Your task to perform on an android device: turn on location history Image 0: 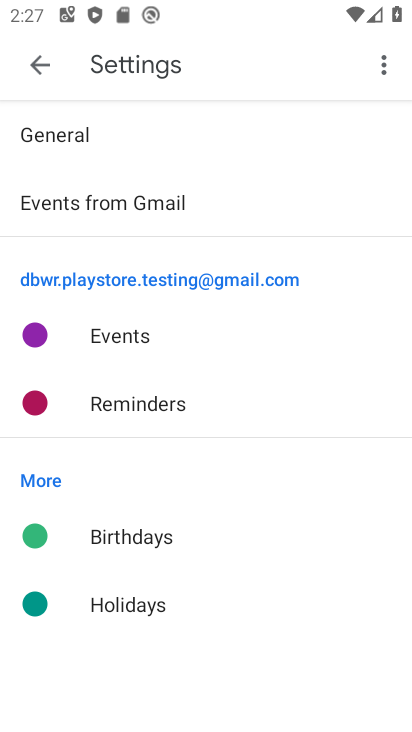
Step 0: press home button
Your task to perform on an android device: turn on location history Image 1: 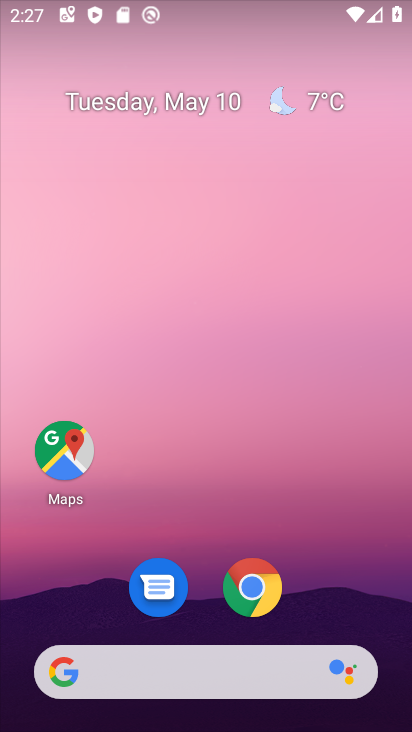
Step 1: drag from (366, 588) to (225, 0)
Your task to perform on an android device: turn on location history Image 2: 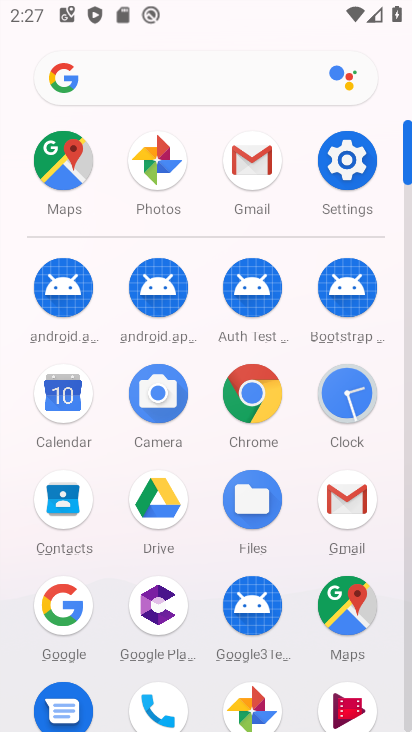
Step 2: click (359, 187)
Your task to perform on an android device: turn on location history Image 3: 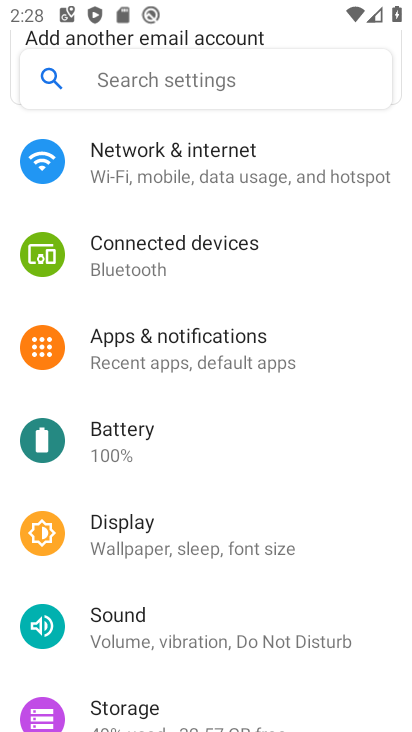
Step 3: drag from (201, 649) to (178, 258)
Your task to perform on an android device: turn on location history Image 4: 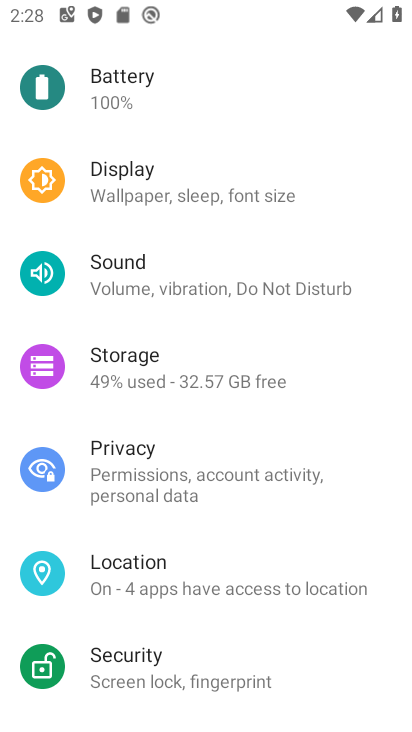
Step 4: click (140, 586)
Your task to perform on an android device: turn on location history Image 5: 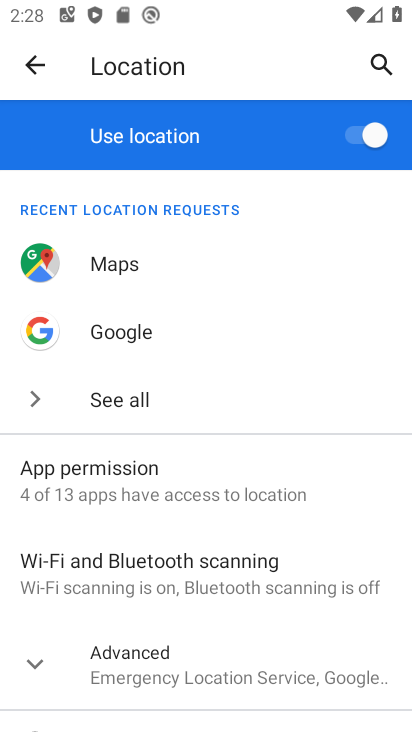
Step 5: drag from (237, 566) to (203, 218)
Your task to perform on an android device: turn on location history Image 6: 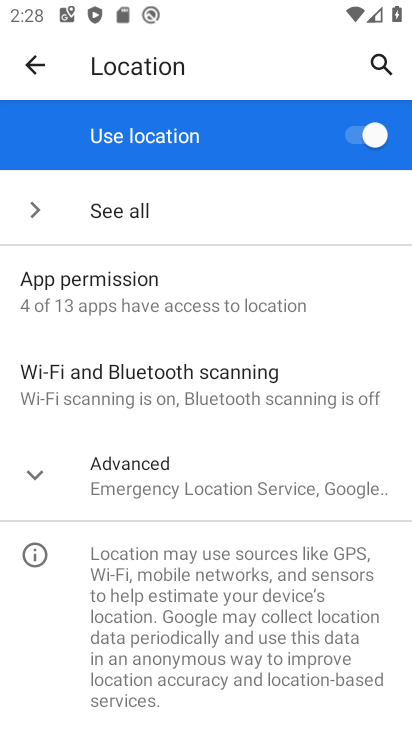
Step 6: click (42, 465)
Your task to perform on an android device: turn on location history Image 7: 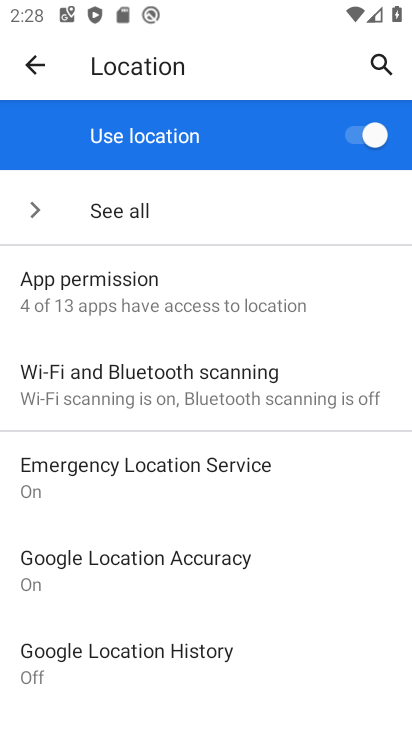
Step 7: click (177, 653)
Your task to perform on an android device: turn on location history Image 8: 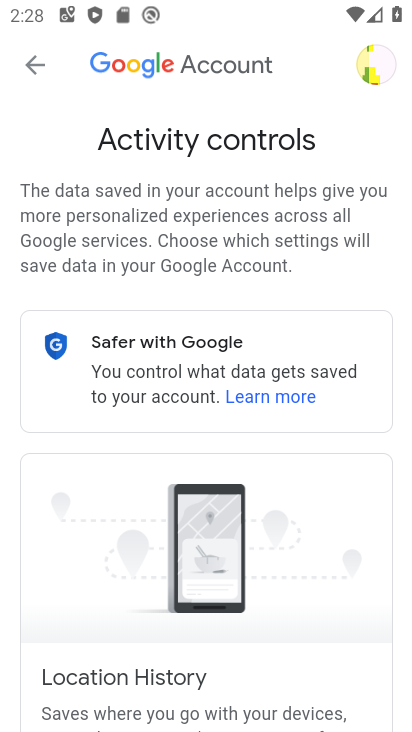
Step 8: drag from (289, 614) to (245, 196)
Your task to perform on an android device: turn on location history Image 9: 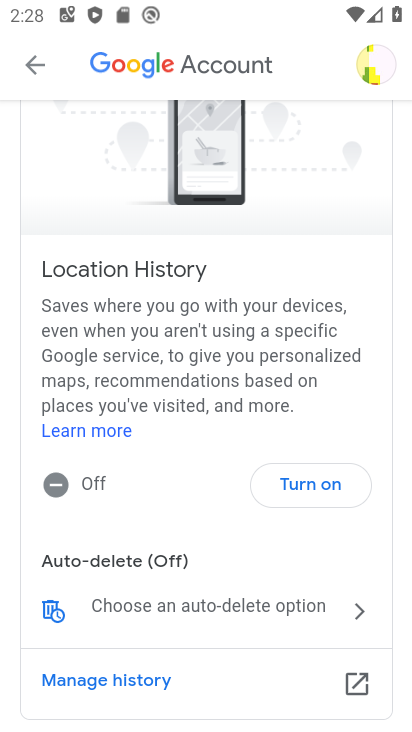
Step 9: click (301, 487)
Your task to perform on an android device: turn on location history Image 10: 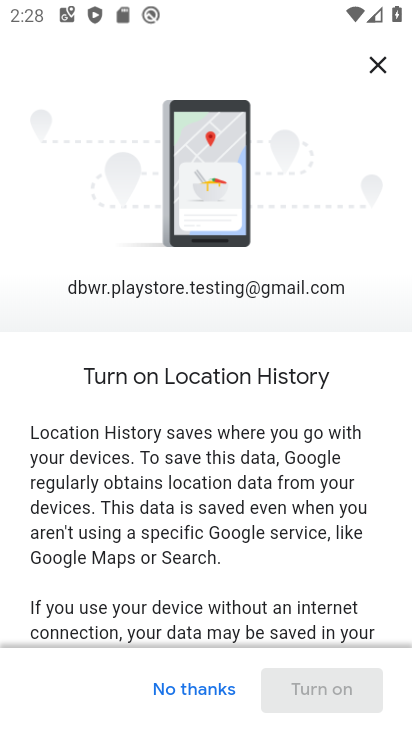
Step 10: drag from (298, 580) to (254, 112)
Your task to perform on an android device: turn on location history Image 11: 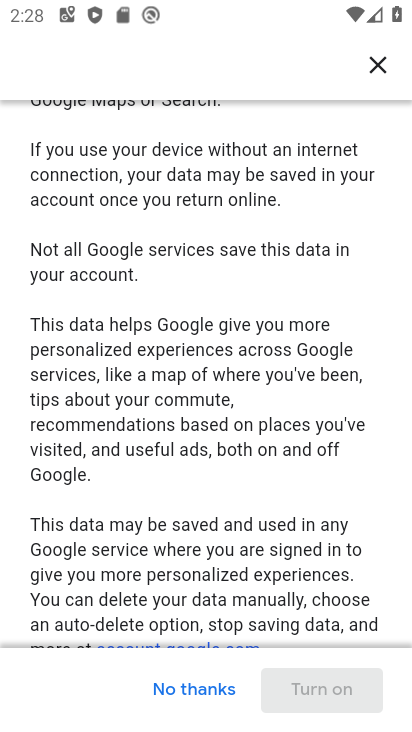
Step 11: drag from (241, 607) to (226, 164)
Your task to perform on an android device: turn on location history Image 12: 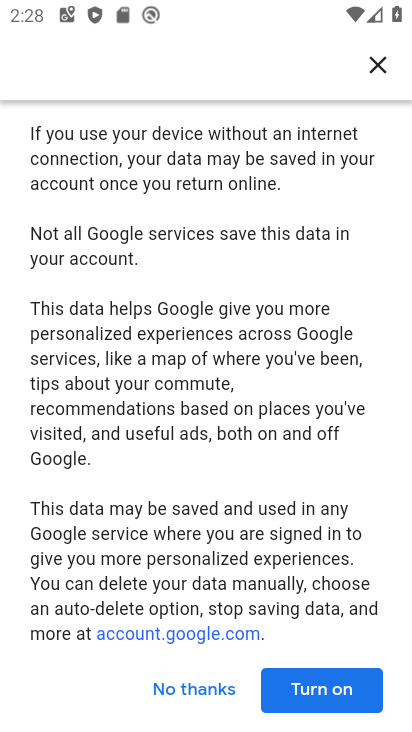
Step 12: click (302, 705)
Your task to perform on an android device: turn on location history Image 13: 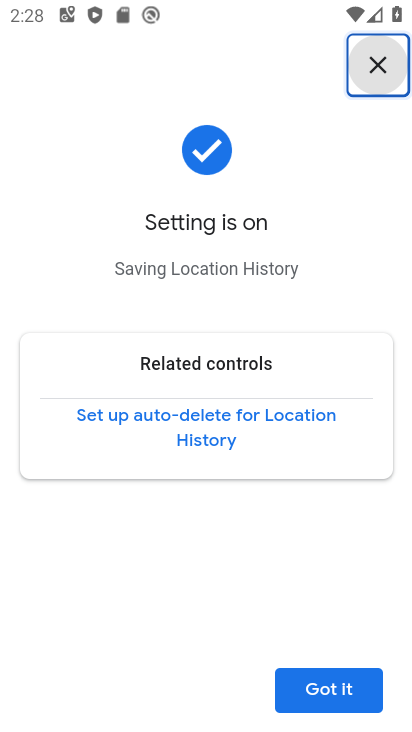
Step 13: click (303, 683)
Your task to perform on an android device: turn on location history Image 14: 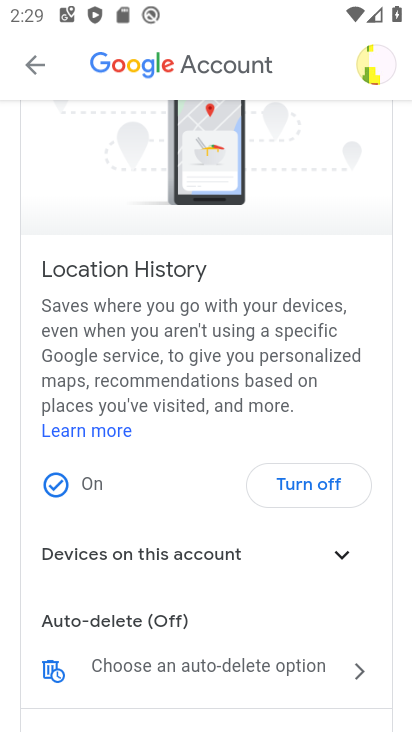
Step 14: task complete